Your task to perform on an android device: turn on the 24-hour format for clock Image 0: 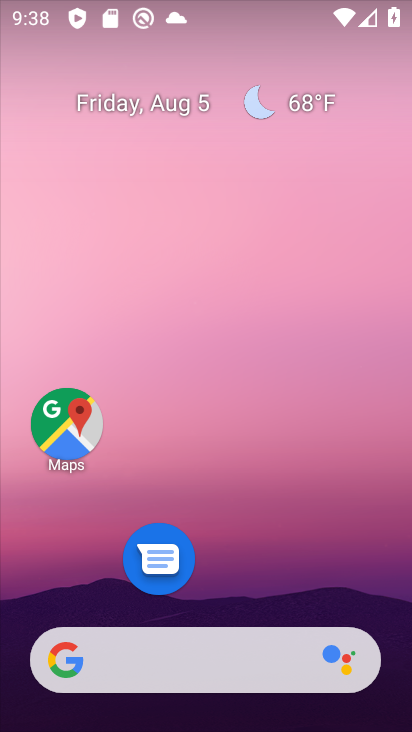
Step 0: drag from (229, 690) to (267, 150)
Your task to perform on an android device: turn on the 24-hour format for clock Image 1: 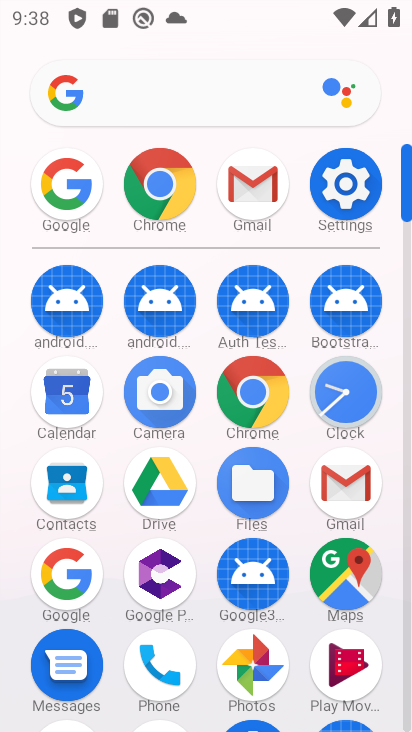
Step 1: click (339, 386)
Your task to perform on an android device: turn on the 24-hour format for clock Image 2: 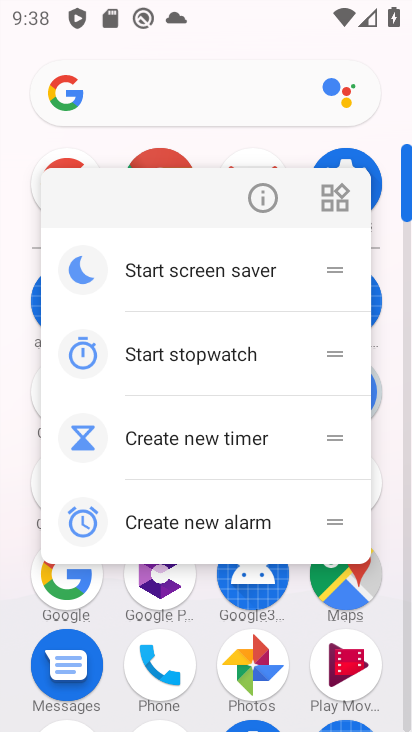
Step 2: click (16, 604)
Your task to perform on an android device: turn on the 24-hour format for clock Image 3: 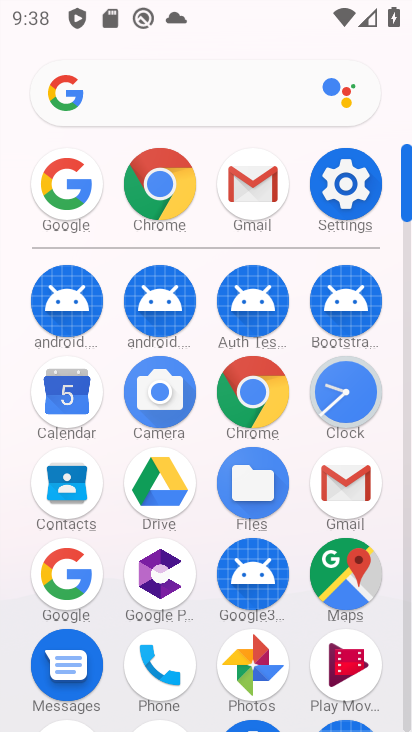
Step 3: click (359, 415)
Your task to perform on an android device: turn on the 24-hour format for clock Image 4: 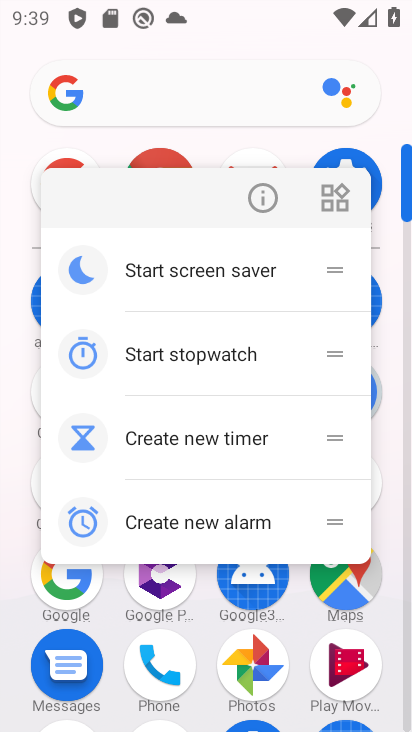
Step 4: click (383, 404)
Your task to perform on an android device: turn on the 24-hour format for clock Image 5: 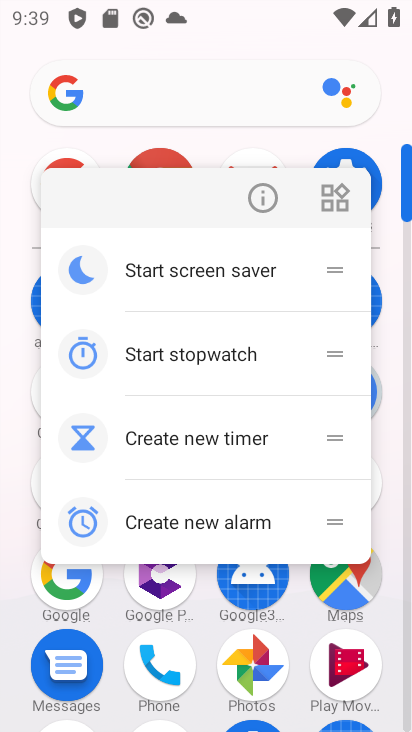
Step 5: click (374, 393)
Your task to perform on an android device: turn on the 24-hour format for clock Image 6: 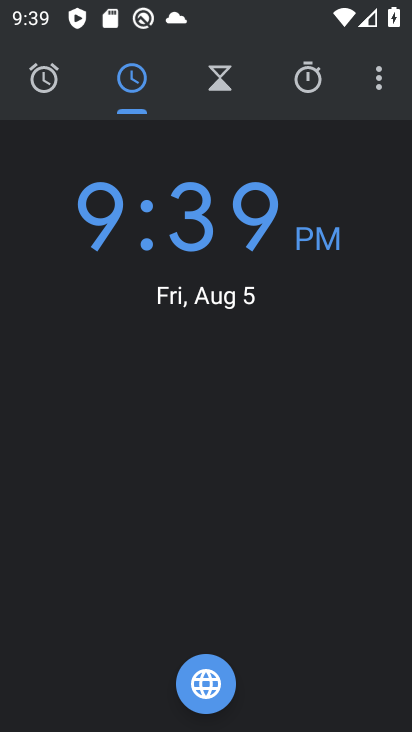
Step 6: click (380, 72)
Your task to perform on an android device: turn on the 24-hour format for clock Image 7: 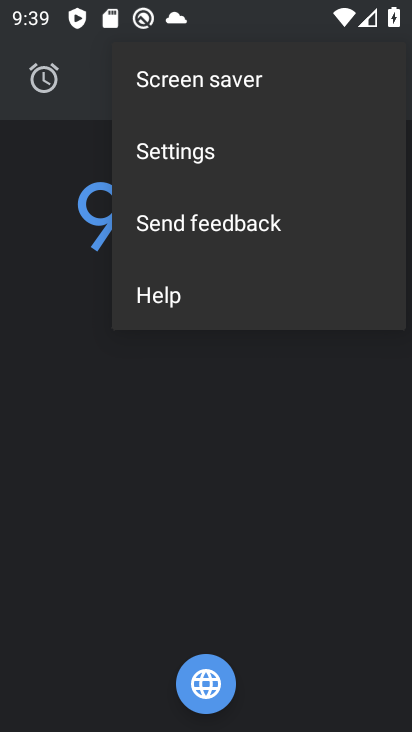
Step 7: click (189, 163)
Your task to perform on an android device: turn on the 24-hour format for clock Image 8: 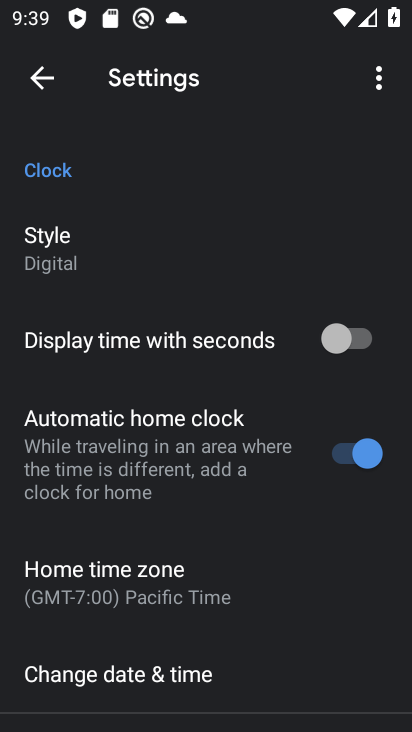
Step 8: click (158, 673)
Your task to perform on an android device: turn on the 24-hour format for clock Image 9: 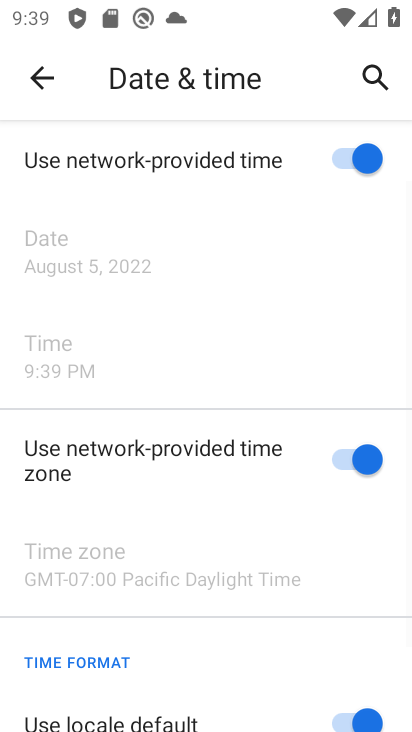
Step 9: task complete